Your task to perform on an android device: see tabs open on other devices in the chrome app Image 0: 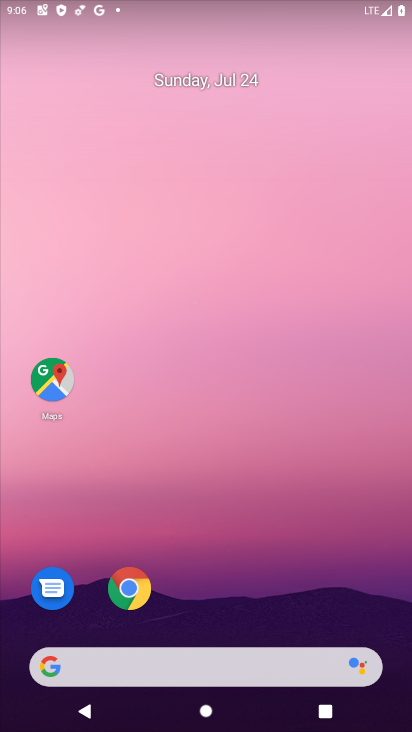
Step 0: click (122, 607)
Your task to perform on an android device: see tabs open on other devices in the chrome app Image 1: 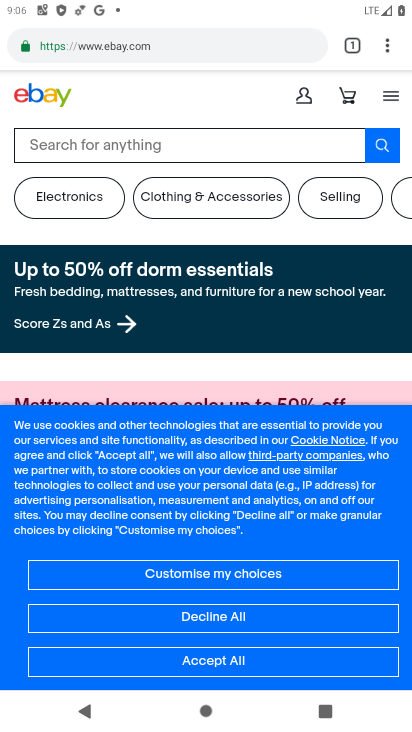
Step 1: task complete